Your task to perform on an android device: open app "Adobe Express: Graphic Design" (install if not already installed) Image 0: 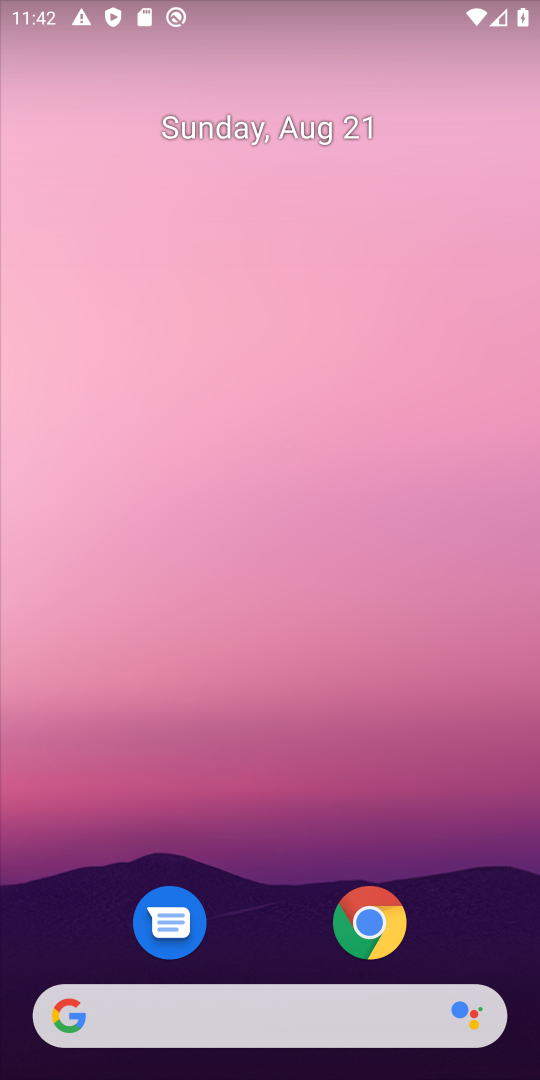
Step 0: drag from (324, 974) to (342, 207)
Your task to perform on an android device: open app "Adobe Express: Graphic Design" (install if not already installed) Image 1: 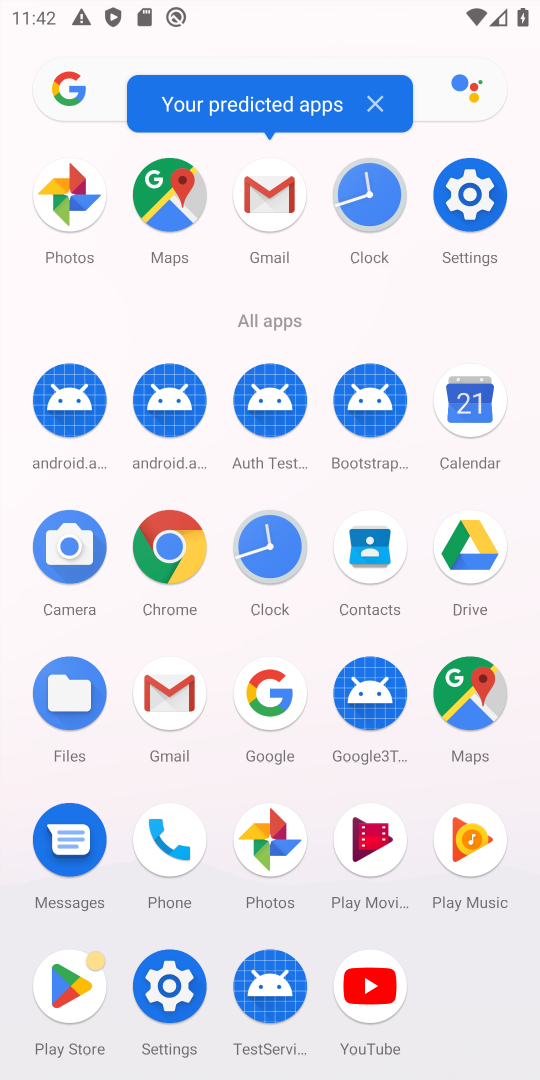
Step 1: click (70, 994)
Your task to perform on an android device: open app "Adobe Express: Graphic Design" (install if not already installed) Image 2: 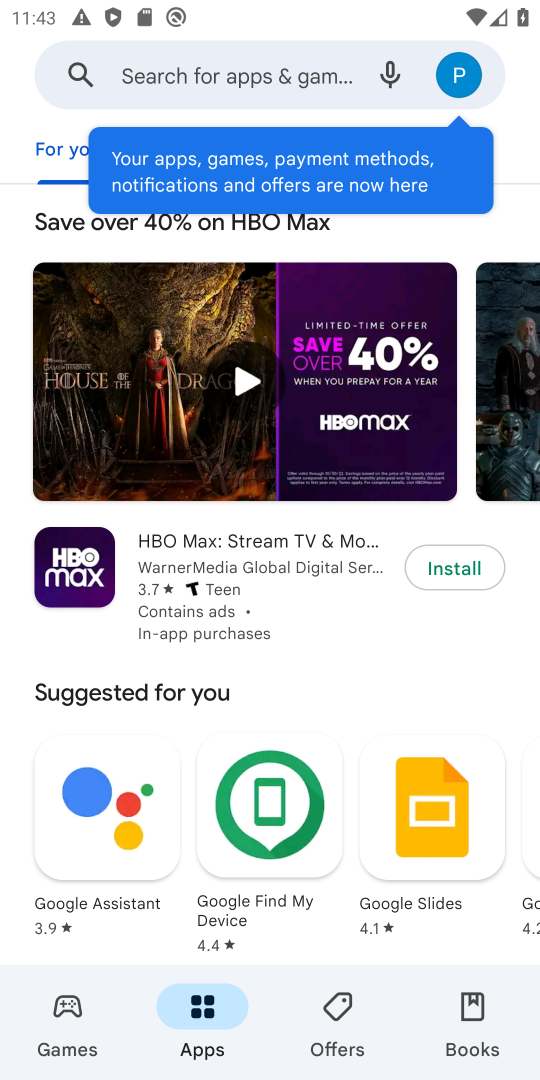
Step 2: click (166, 69)
Your task to perform on an android device: open app "Adobe Express: Graphic Design" (install if not already installed) Image 3: 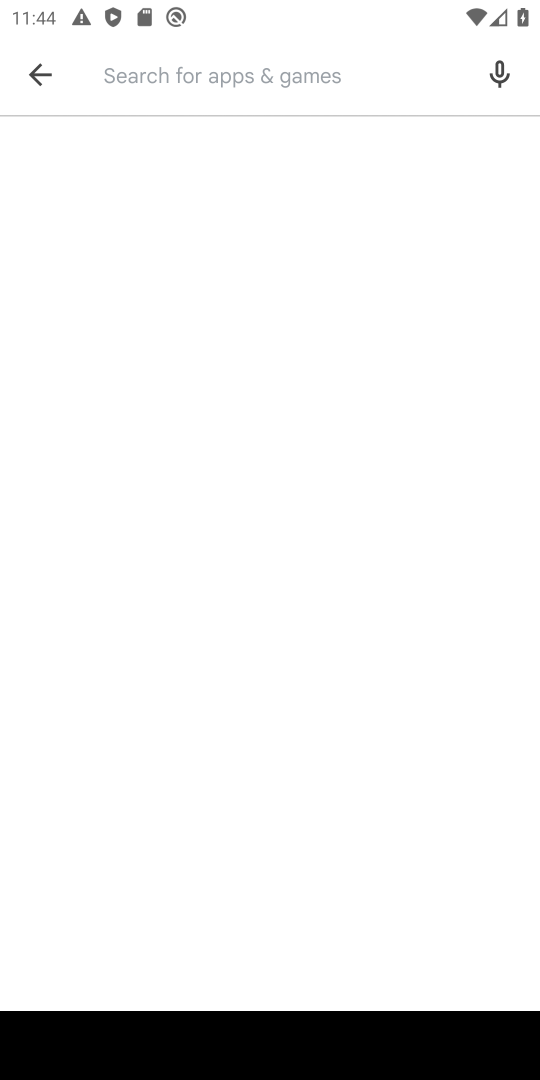
Step 3: type "Adobe Express: Graphic Design"
Your task to perform on an android device: open app "Adobe Express: Graphic Design" (install if not already installed) Image 4: 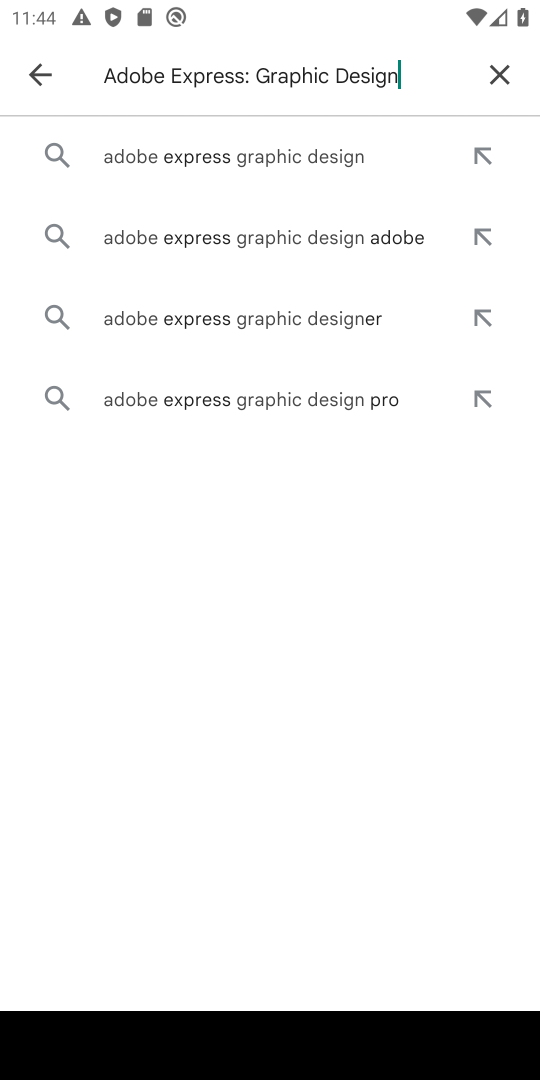
Step 4: click (223, 153)
Your task to perform on an android device: open app "Adobe Express: Graphic Design" (install if not already installed) Image 5: 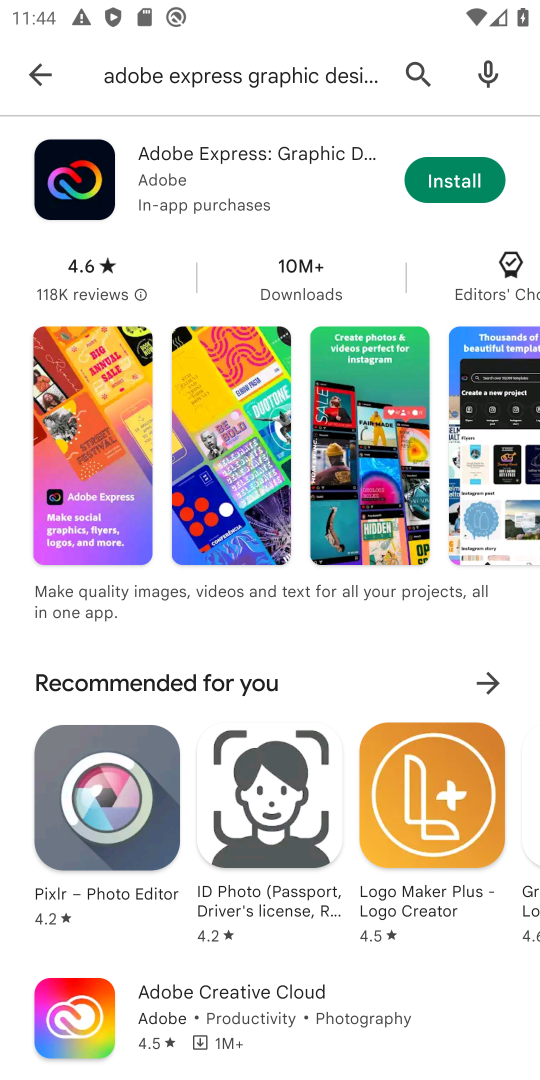
Step 5: click (443, 185)
Your task to perform on an android device: open app "Adobe Express: Graphic Design" (install if not already installed) Image 6: 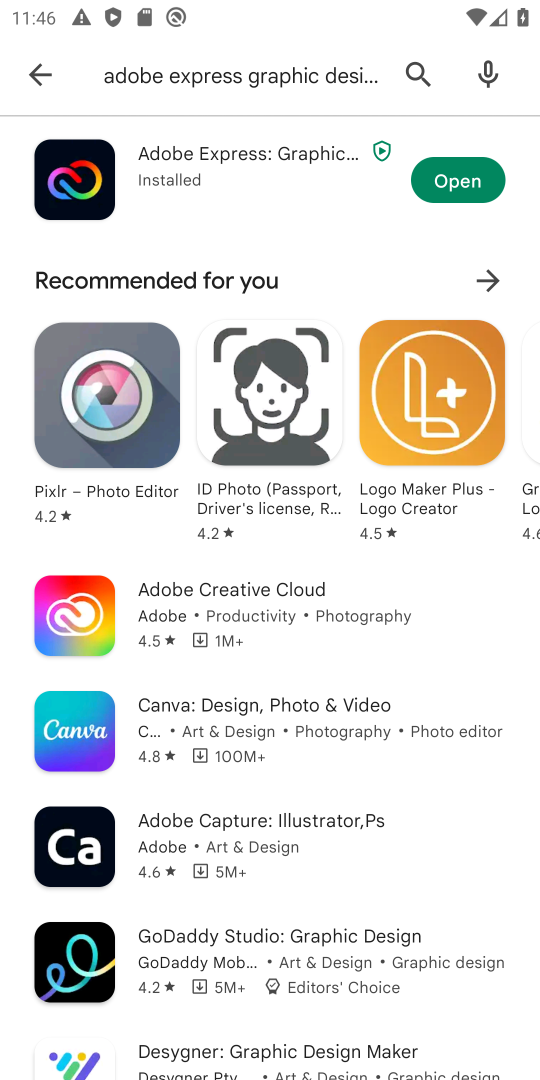
Step 6: click (446, 184)
Your task to perform on an android device: open app "Adobe Express: Graphic Design" (install if not already installed) Image 7: 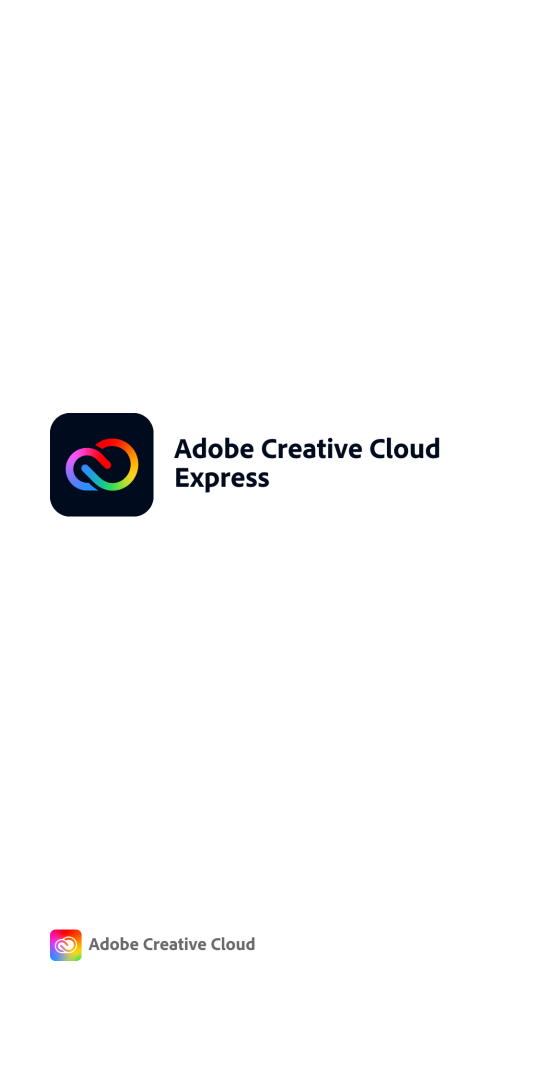
Step 7: task complete